Your task to perform on an android device: change the clock display to digital Image 0: 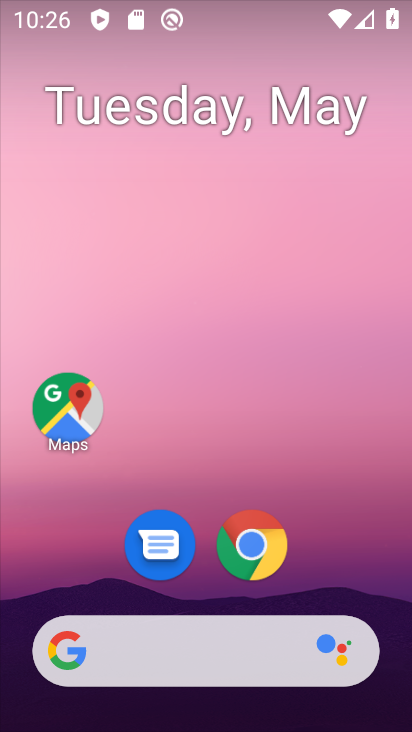
Step 0: click (138, 32)
Your task to perform on an android device: change the clock display to digital Image 1: 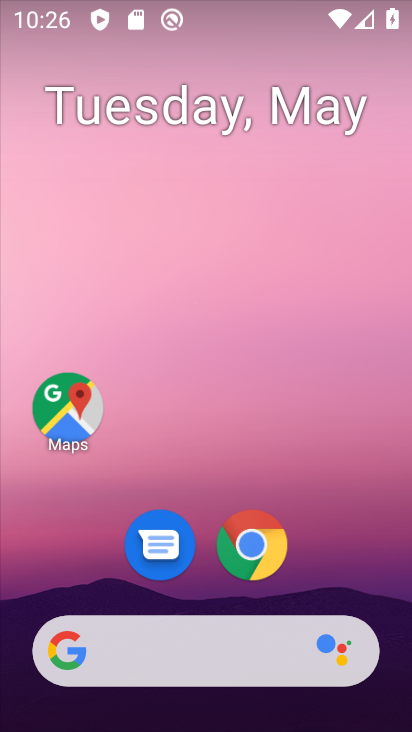
Step 1: drag from (201, 631) to (163, 177)
Your task to perform on an android device: change the clock display to digital Image 2: 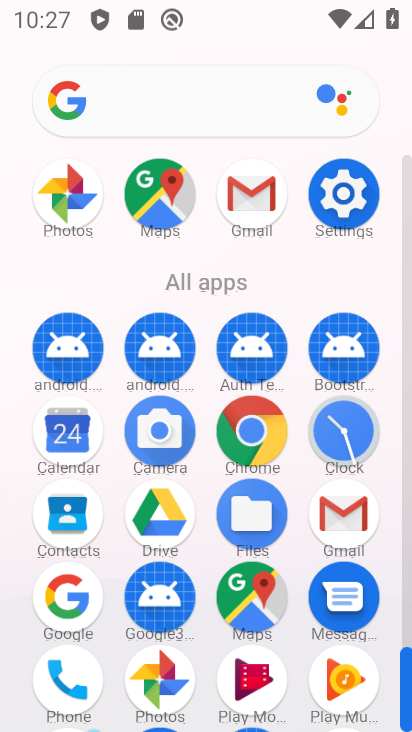
Step 2: click (335, 443)
Your task to perform on an android device: change the clock display to digital Image 3: 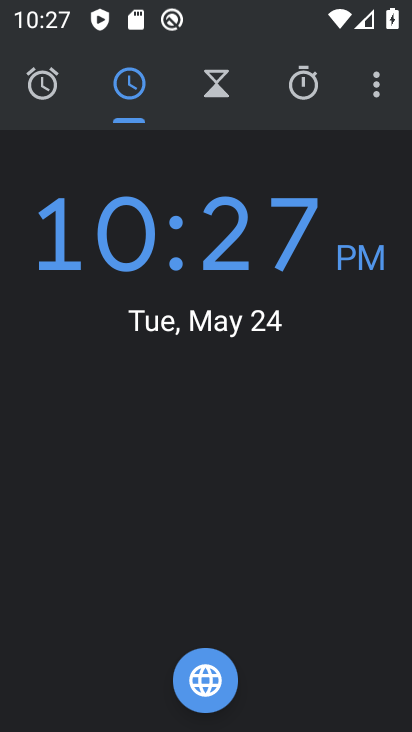
Step 3: click (379, 91)
Your task to perform on an android device: change the clock display to digital Image 4: 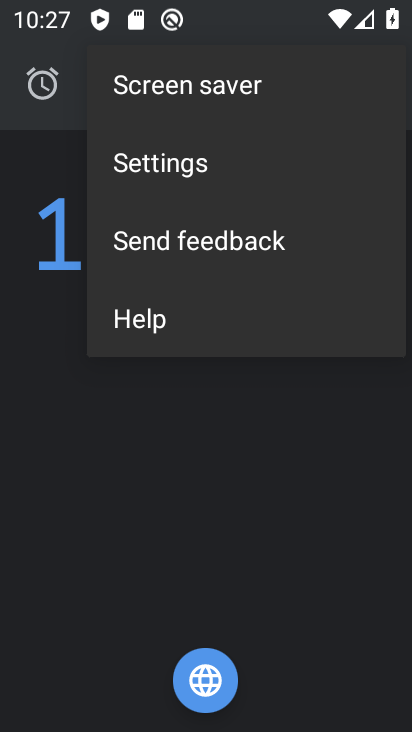
Step 4: click (267, 134)
Your task to perform on an android device: change the clock display to digital Image 5: 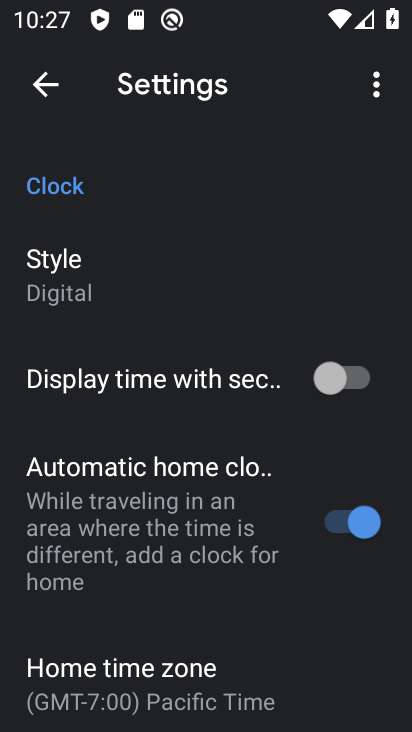
Step 5: click (116, 267)
Your task to perform on an android device: change the clock display to digital Image 6: 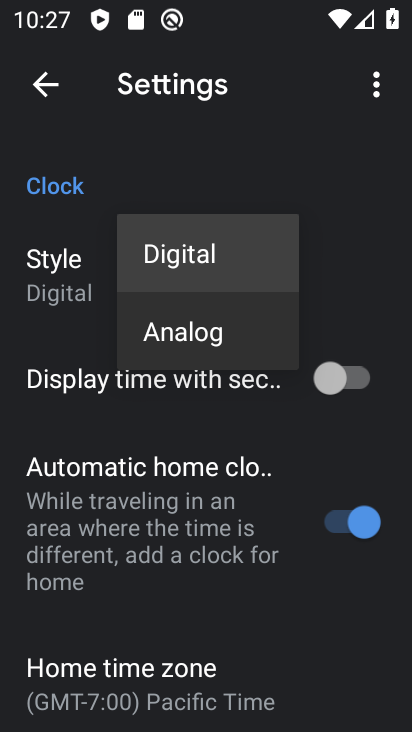
Step 6: click (202, 248)
Your task to perform on an android device: change the clock display to digital Image 7: 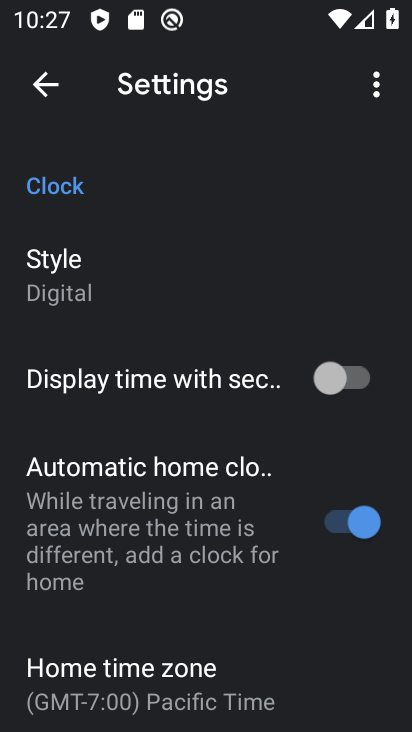
Step 7: task complete